Your task to perform on an android device: Go to internet settings Image 0: 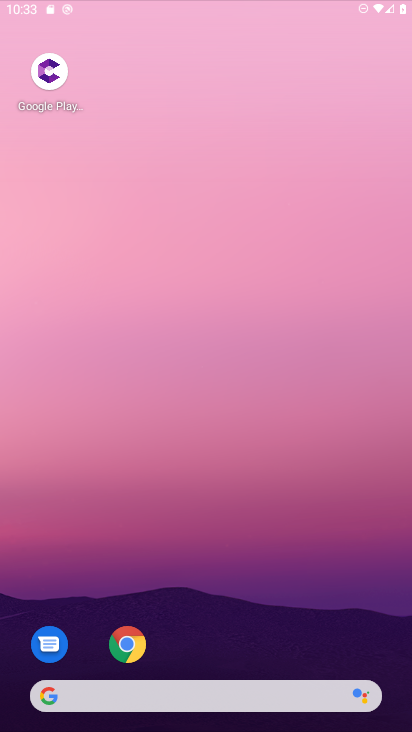
Step 0: press home button
Your task to perform on an android device: Go to internet settings Image 1: 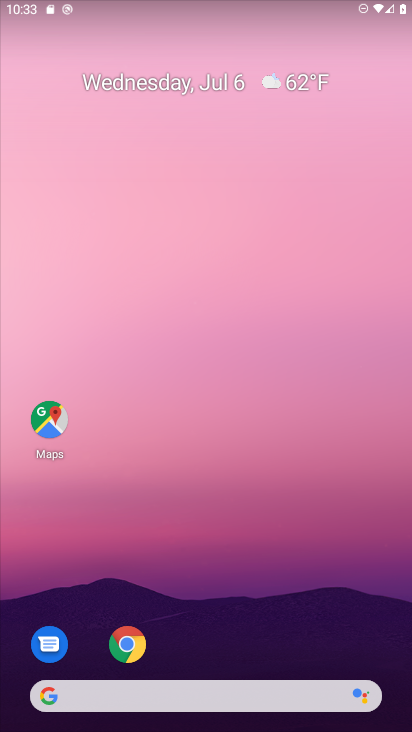
Step 1: drag from (248, 632) to (246, 204)
Your task to perform on an android device: Go to internet settings Image 2: 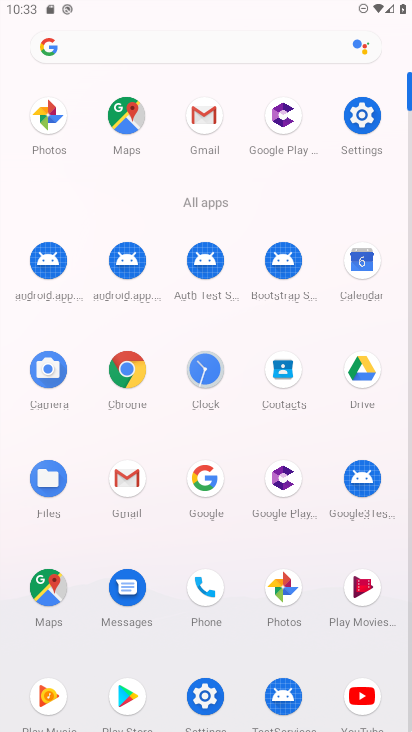
Step 2: click (358, 122)
Your task to perform on an android device: Go to internet settings Image 3: 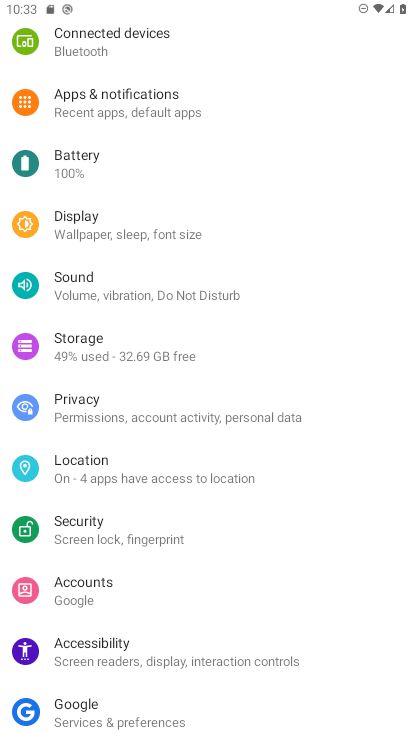
Step 3: drag from (369, 165) to (363, 731)
Your task to perform on an android device: Go to internet settings Image 4: 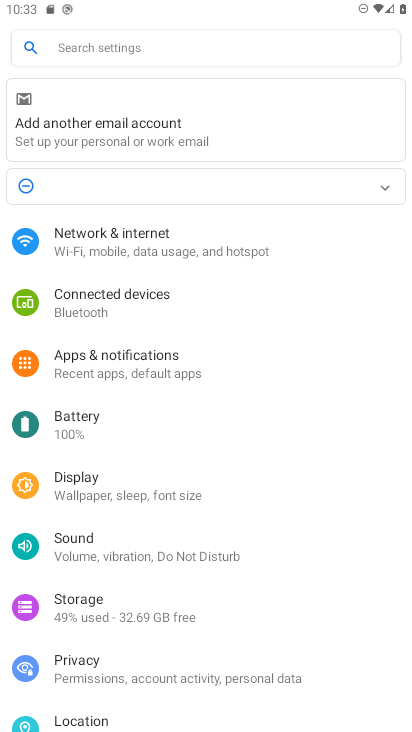
Step 4: click (122, 246)
Your task to perform on an android device: Go to internet settings Image 5: 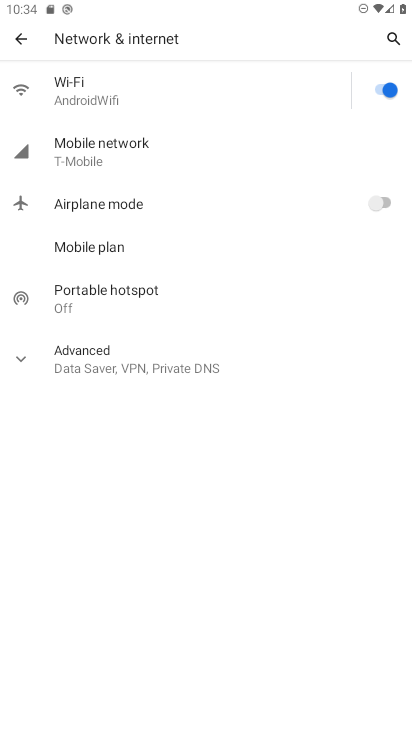
Step 5: task complete